Your task to perform on an android device: Go to CNN.com Image 0: 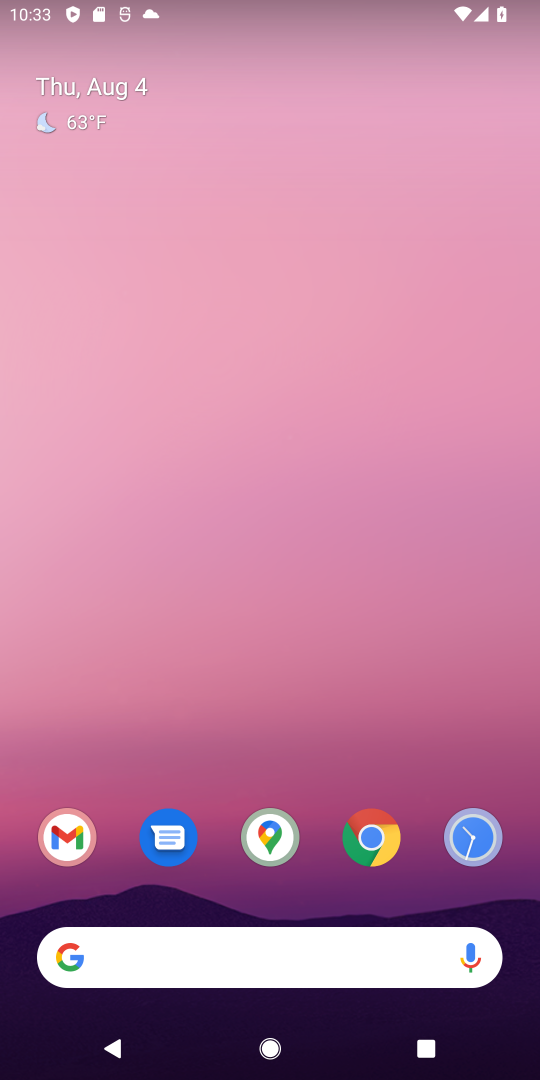
Step 0: drag from (286, 817) to (273, 290)
Your task to perform on an android device: Go to CNN.com Image 1: 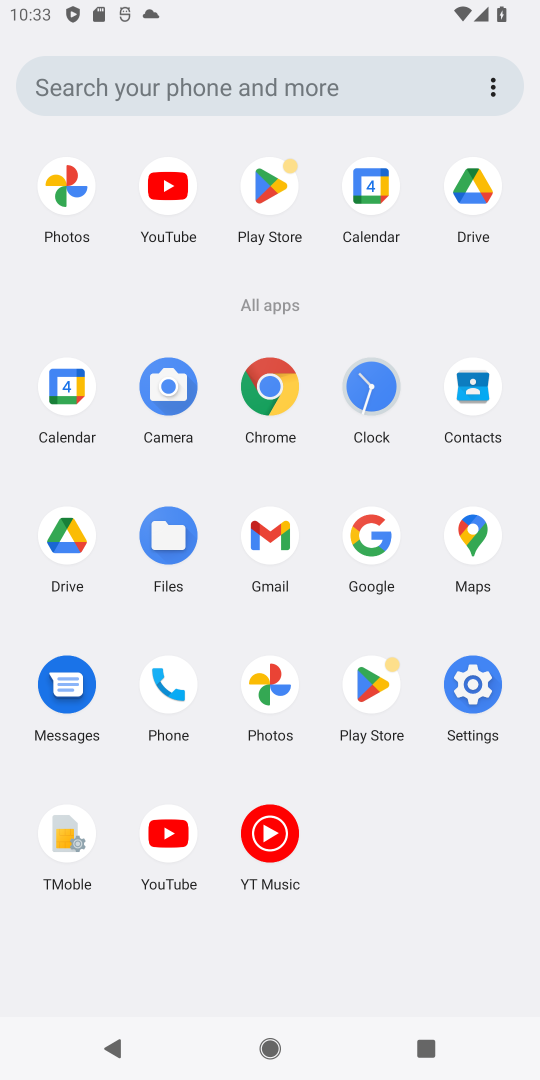
Step 1: click (255, 368)
Your task to perform on an android device: Go to CNN.com Image 2: 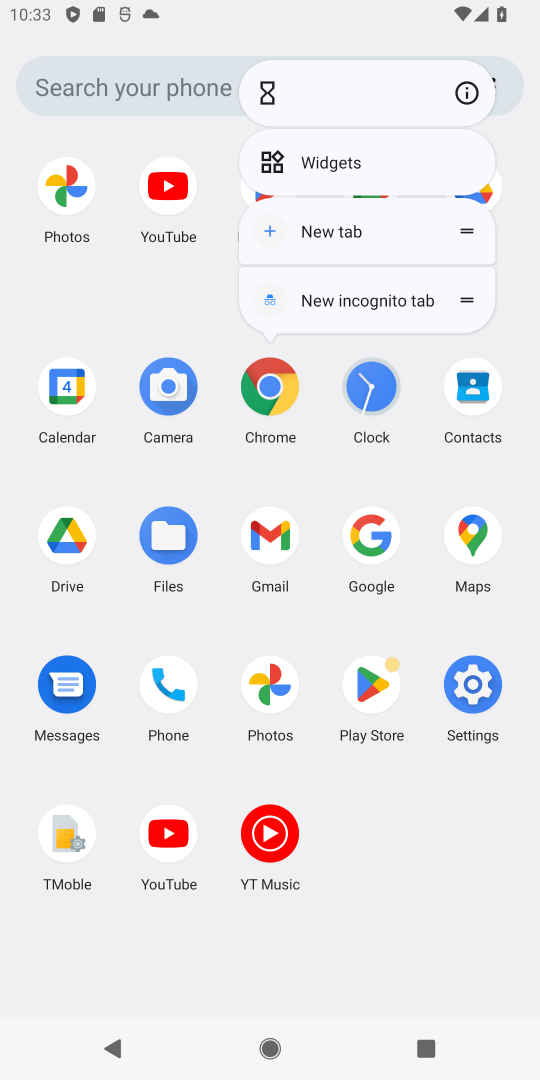
Step 2: click (262, 373)
Your task to perform on an android device: Go to CNN.com Image 3: 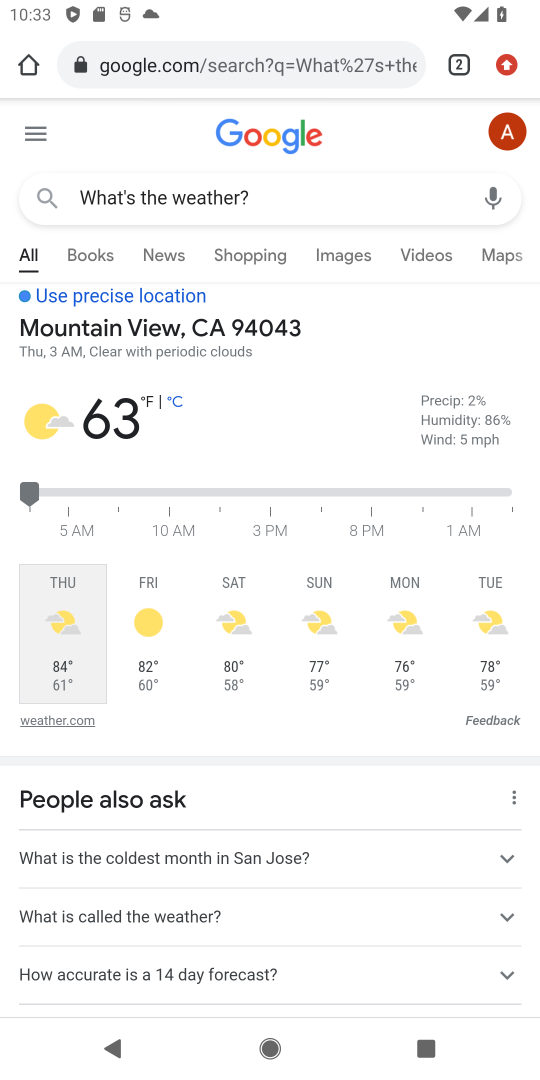
Step 3: click (511, 66)
Your task to perform on an android device: Go to CNN.com Image 4: 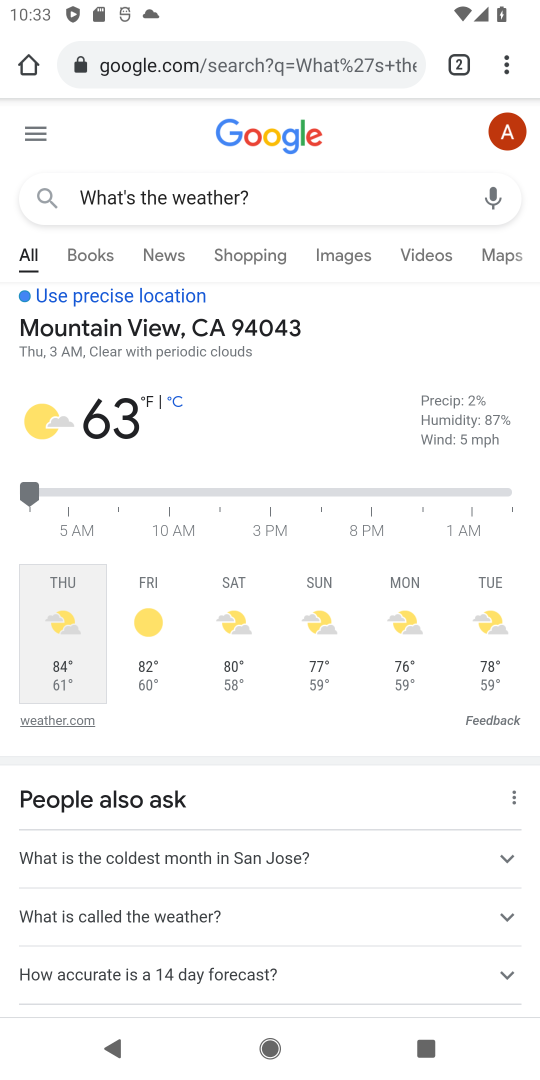
Step 4: click (513, 64)
Your task to perform on an android device: Go to CNN.com Image 5: 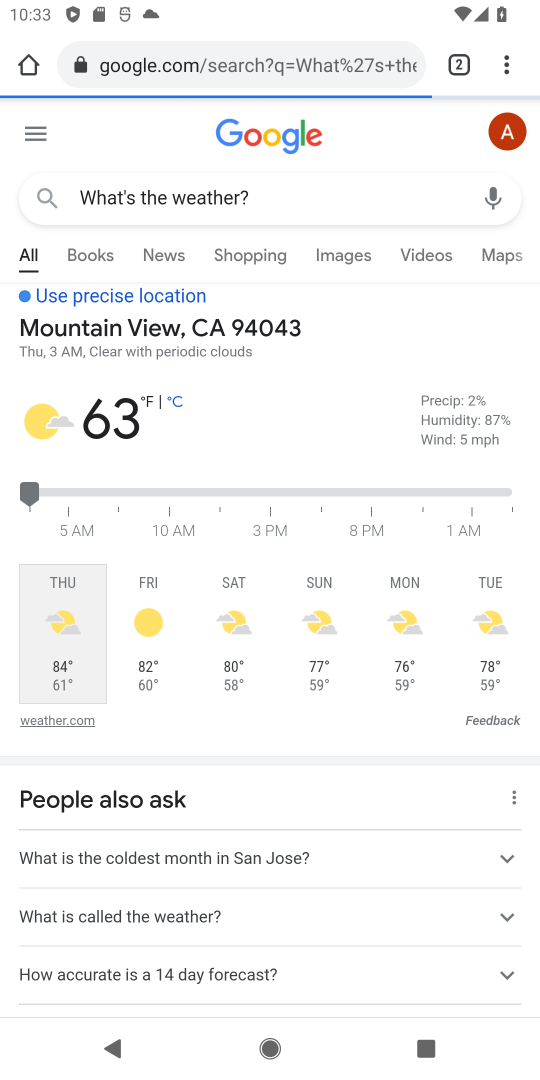
Step 5: click (503, 54)
Your task to perform on an android device: Go to CNN.com Image 6: 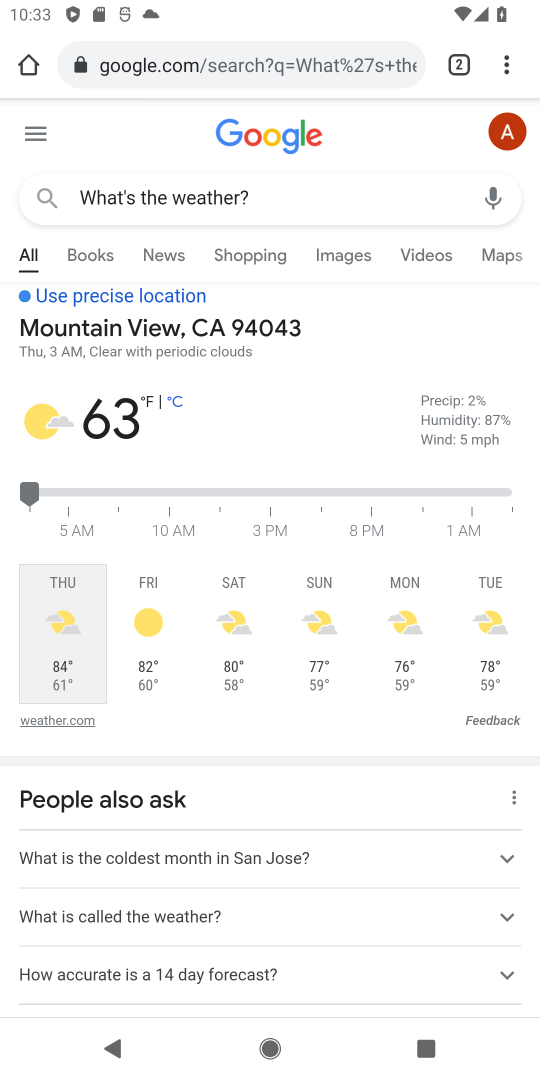
Step 6: click (498, 59)
Your task to perform on an android device: Go to CNN.com Image 7: 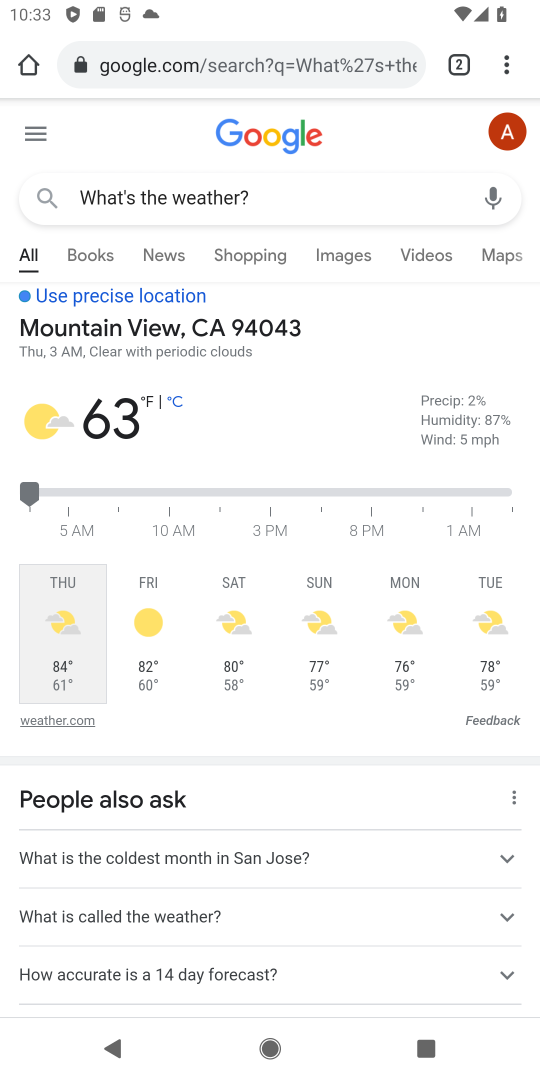
Step 7: click (502, 61)
Your task to perform on an android device: Go to CNN.com Image 8: 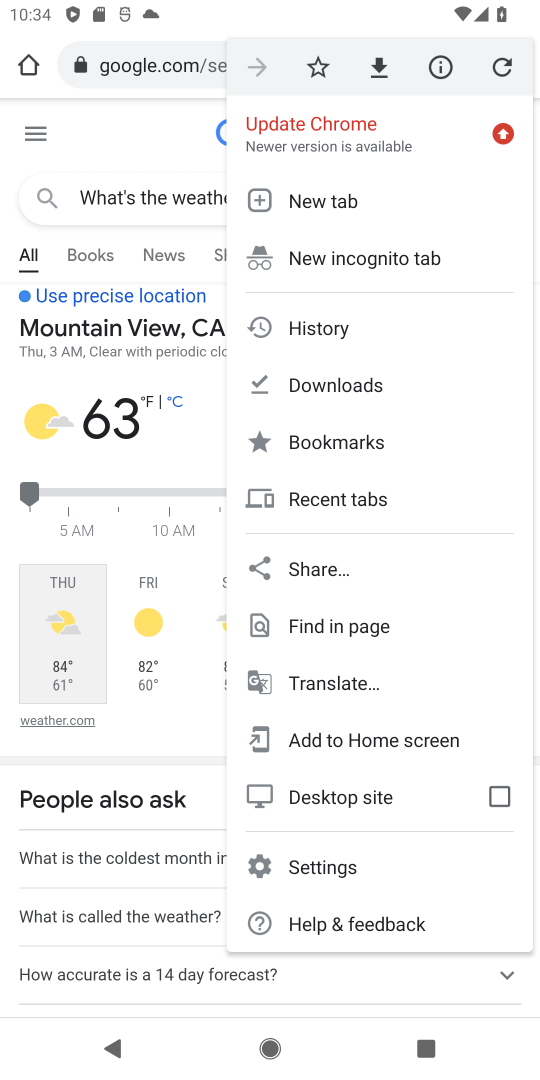
Step 8: click (313, 184)
Your task to perform on an android device: Go to CNN.com Image 9: 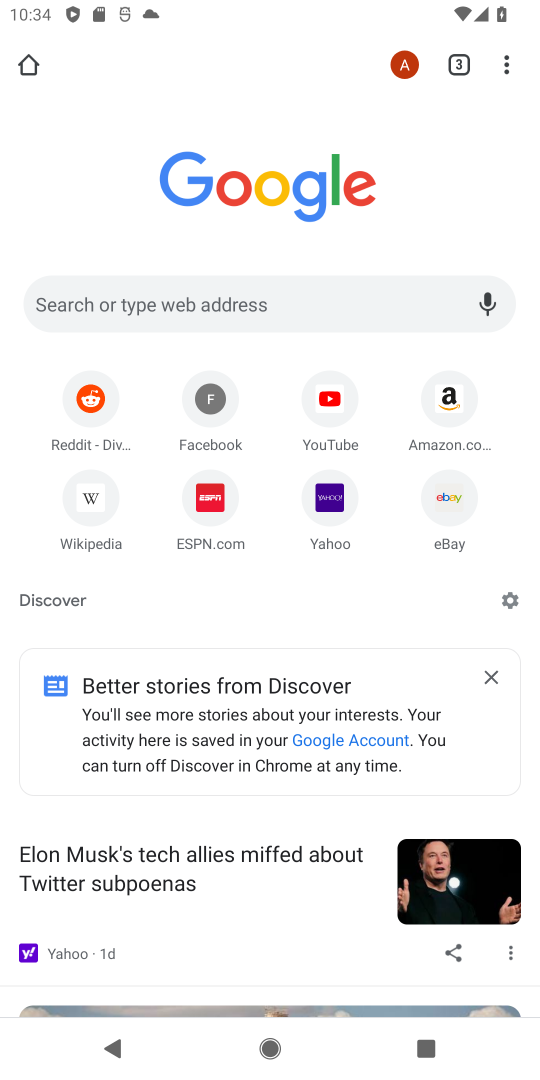
Step 9: click (255, 297)
Your task to perform on an android device: Go to CNN.com Image 10: 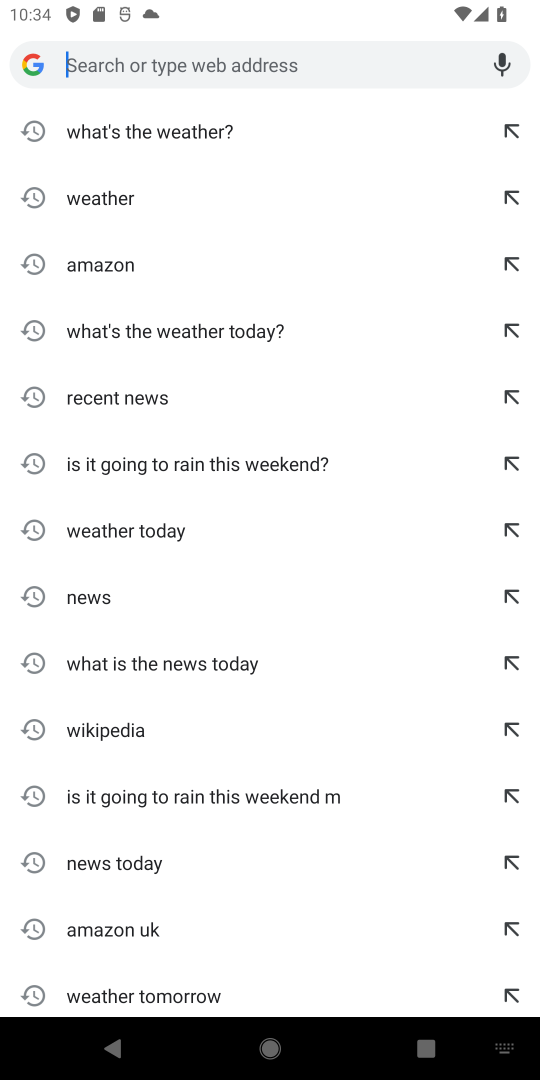
Step 10: type "CNN.com "
Your task to perform on an android device: Go to CNN.com Image 11: 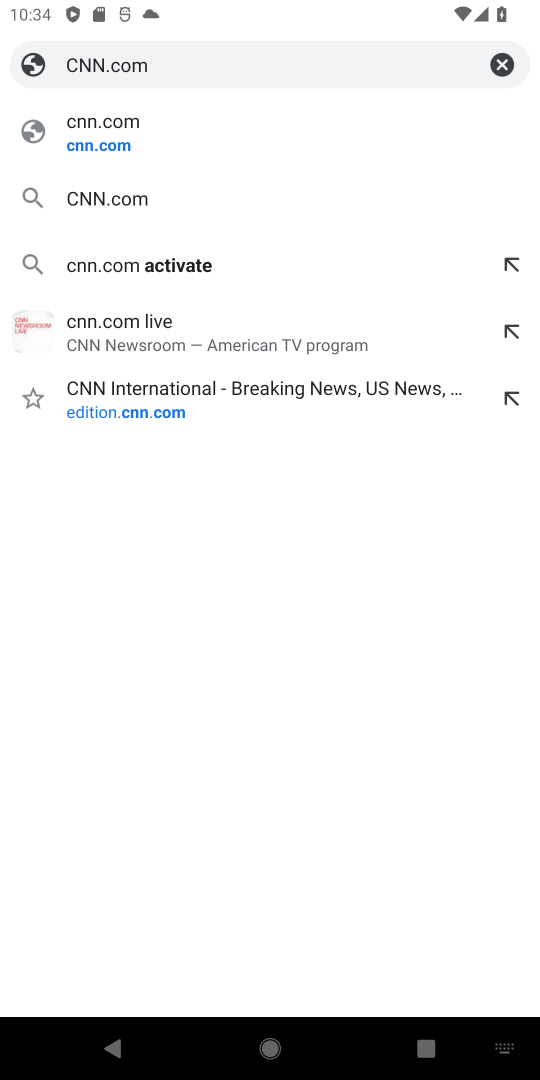
Step 11: click (116, 124)
Your task to perform on an android device: Go to CNN.com Image 12: 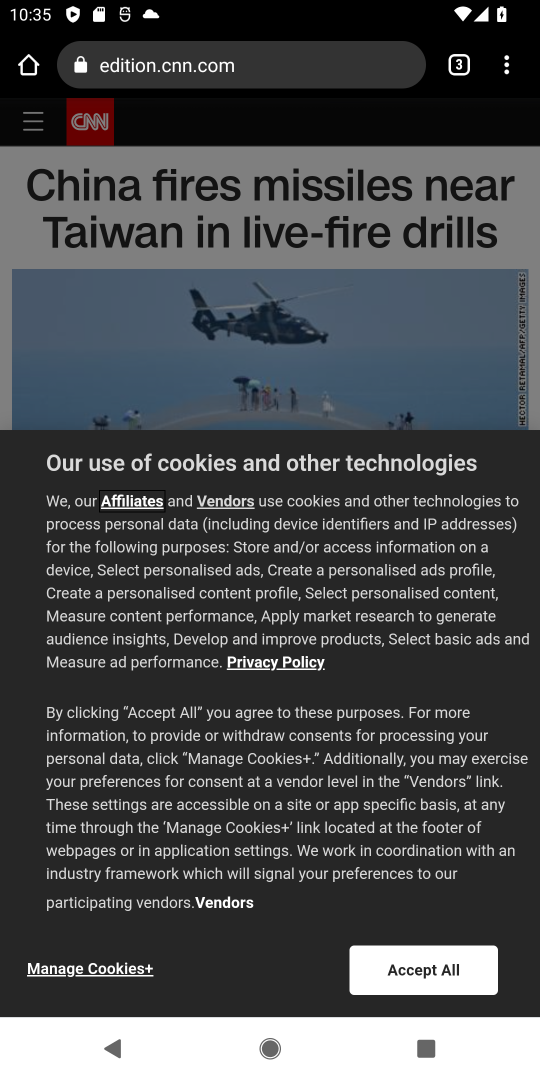
Step 12: task complete